Your task to perform on an android device: Open network settings Image 0: 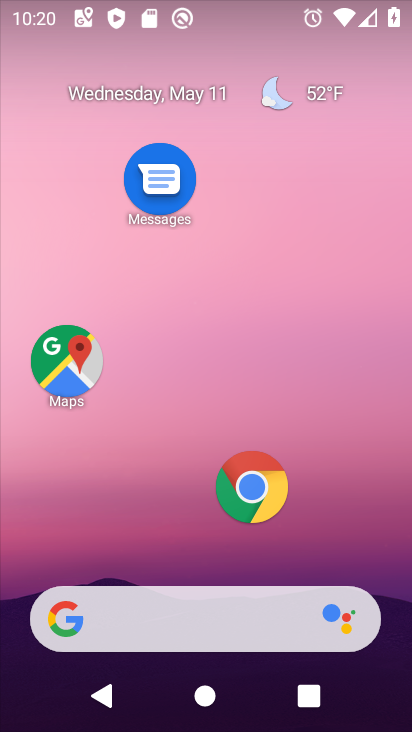
Step 0: drag from (205, 558) to (248, 118)
Your task to perform on an android device: Open network settings Image 1: 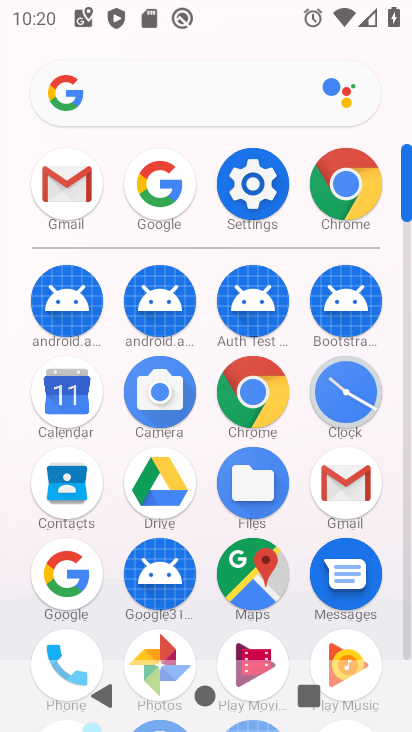
Step 1: click (251, 205)
Your task to perform on an android device: Open network settings Image 2: 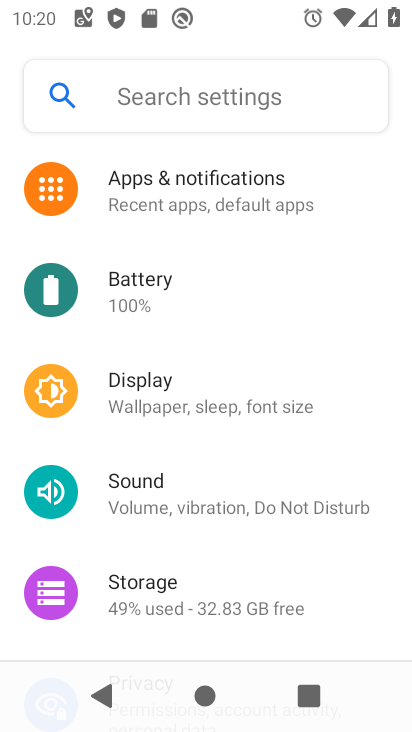
Step 2: drag from (223, 248) to (261, 501)
Your task to perform on an android device: Open network settings Image 3: 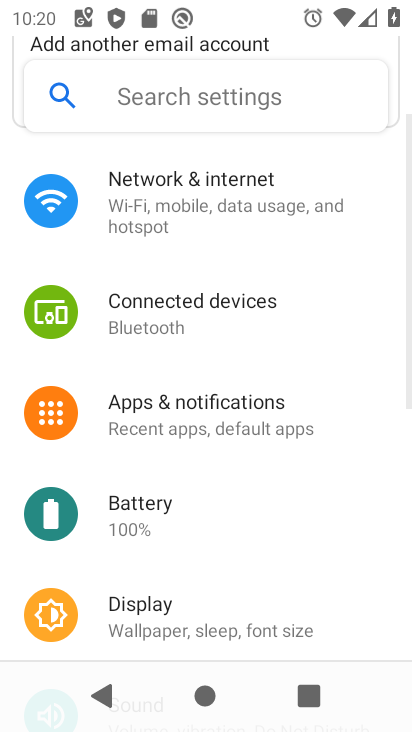
Step 3: click (158, 228)
Your task to perform on an android device: Open network settings Image 4: 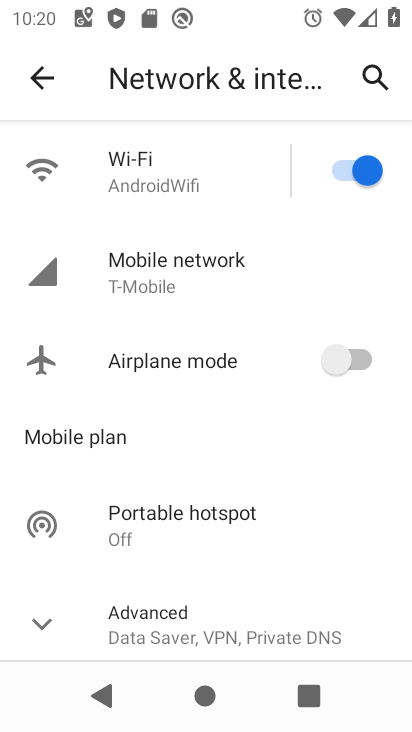
Step 4: click (178, 267)
Your task to perform on an android device: Open network settings Image 5: 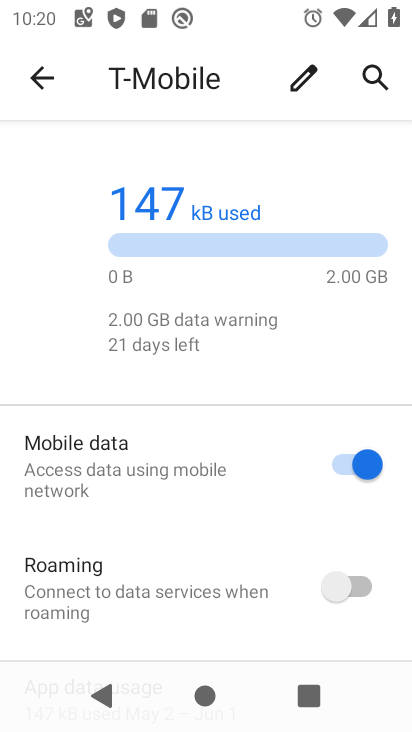
Step 5: task complete